Your task to perform on an android device: Show me recent news Image 0: 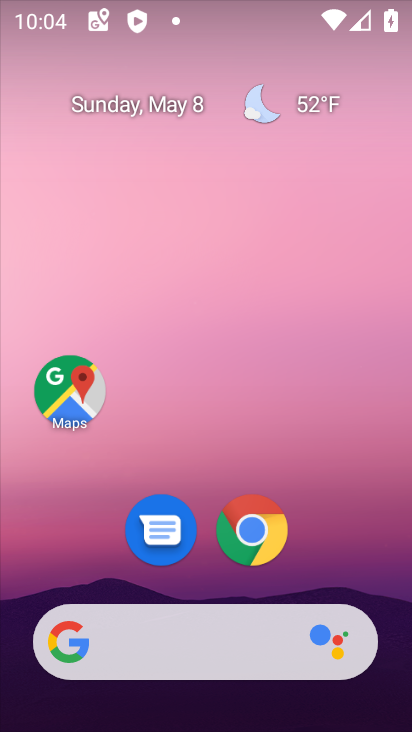
Step 0: drag from (358, 579) to (404, 39)
Your task to perform on an android device: Show me recent news Image 1: 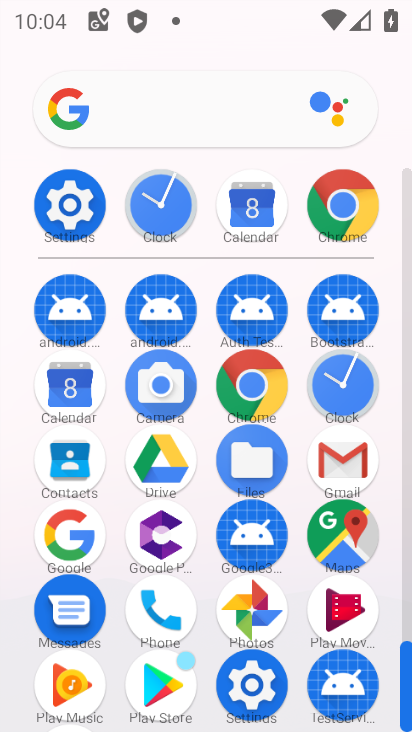
Step 1: click (259, 384)
Your task to perform on an android device: Show me recent news Image 2: 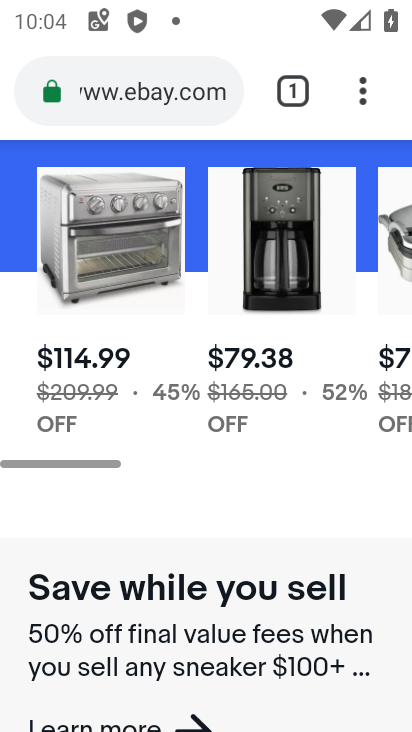
Step 2: click (177, 90)
Your task to perform on an android device: Show me recent news Image 3: 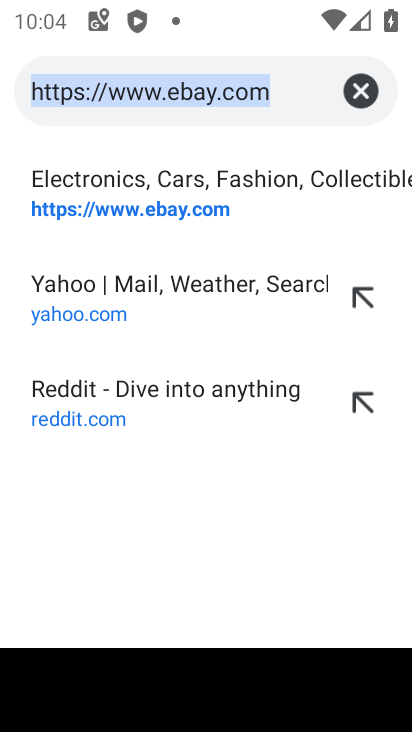
Step 3: click (371, 97)
Your task to perform on an android device: Show me recent news Image 4: 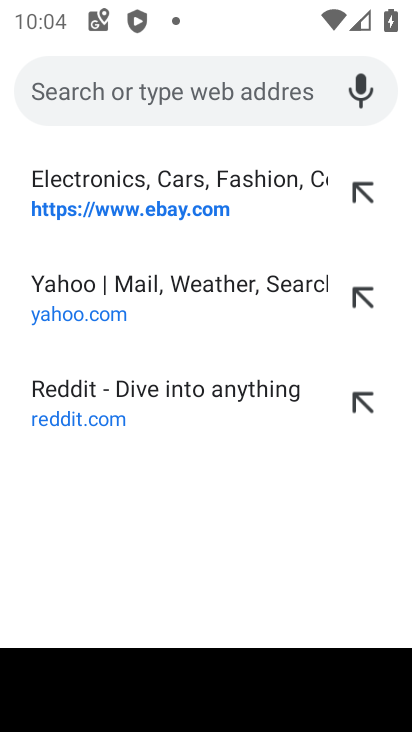
Step 4: type "recent news"
Your task to perform on an android device: Show me recent news Image 5: 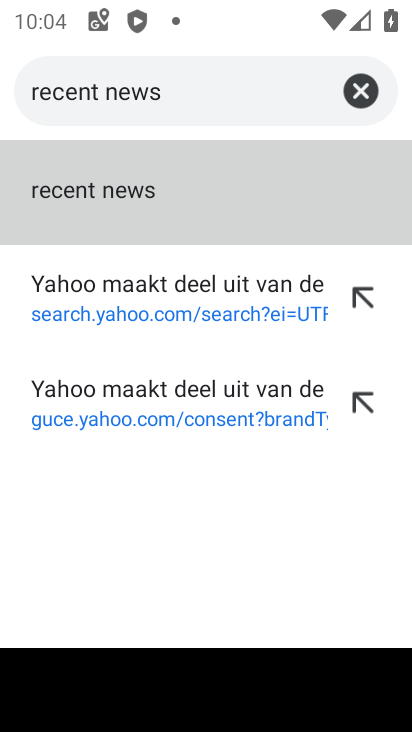
Step 5: click (135, 188)
Your task to perform on an android device: Show me recent news Image 6: 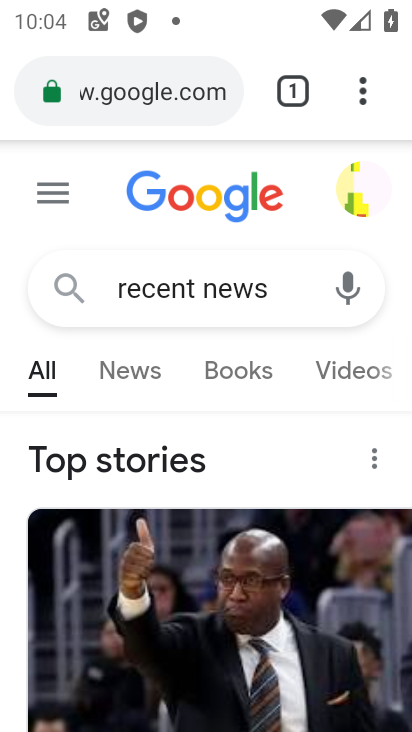
Step 6: task complete